Your task to perform on an android device: open sync settings in chrome Image 0: 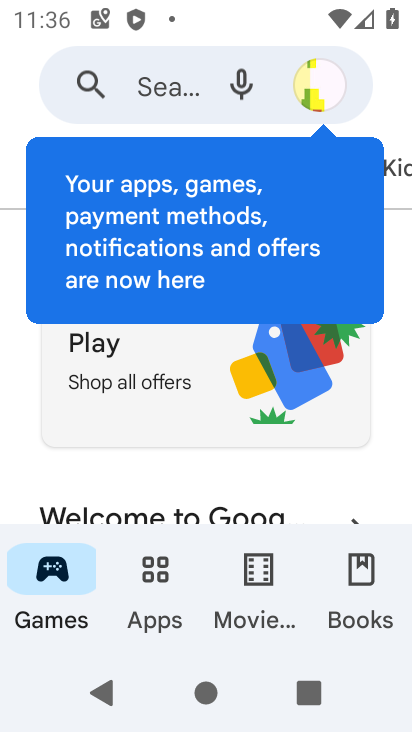
Step 0: press home button
Your task to perform on an android device: open sync settings in chrome Image 1: 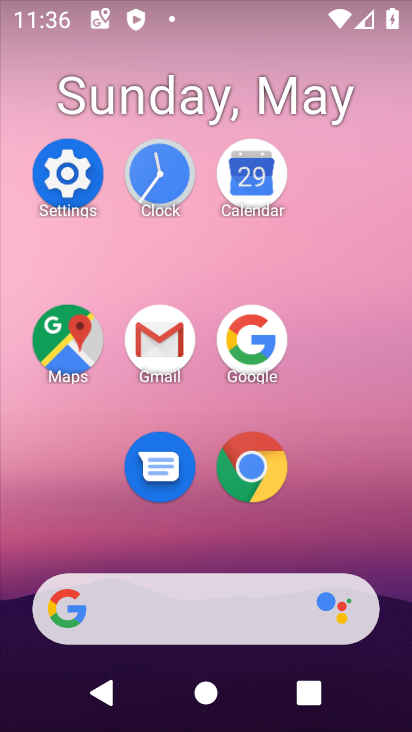
Step 1: click (257, 435)
Your task to perform on an android device: open sync settings in chrome Image 2: 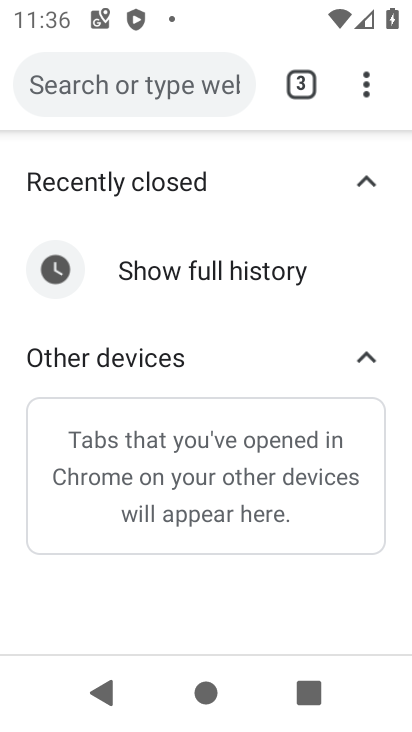
Step 2: click (360, 76)
Your task to perform on an android device: open sync settings in chrome Image 3: 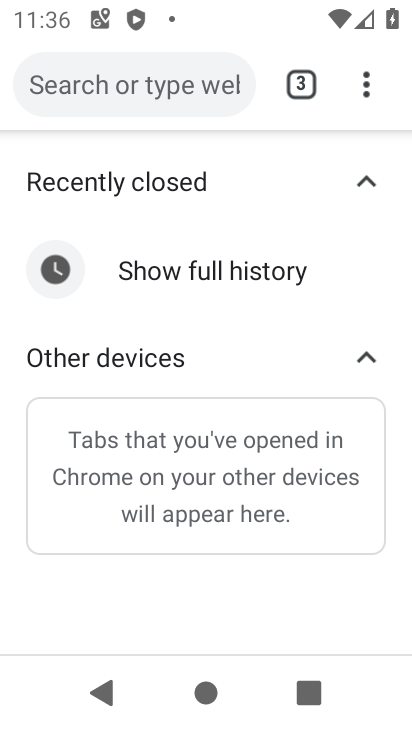
Step 3: click (356, 94)
Your task to perform on an android device: open sync settings in chrome Image 4: 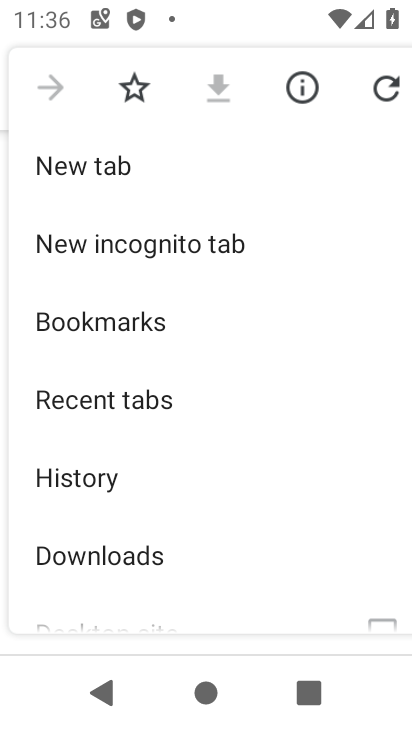
Step 4: drag from (124, 648) to (215, 280)
Your task to perform on an android device: open sync settings in chrome Image 5: 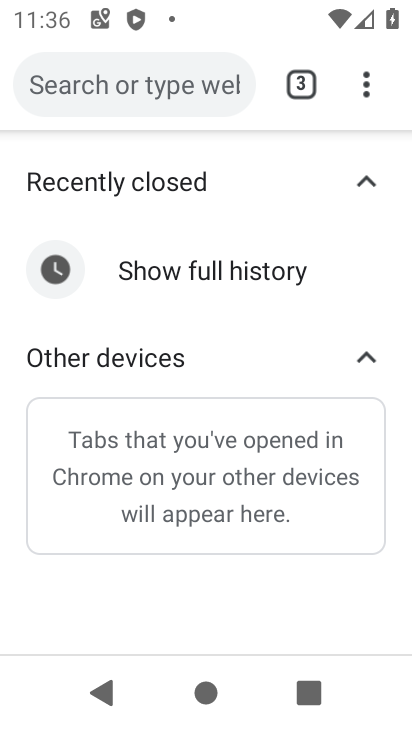
Step 5: click (374, 91)
Your task to perform on an android device: open sync settings in chrome Image 6: 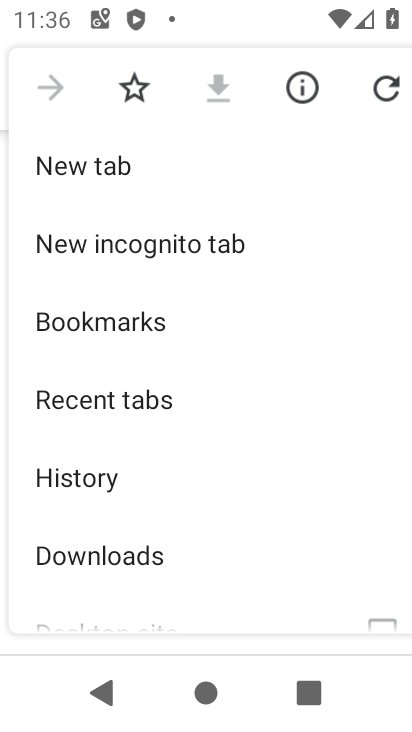
Step 6: drag from (139, 537) to (193, 154)
Your task to perform on an android device: open sync settings in chrome Image 7: 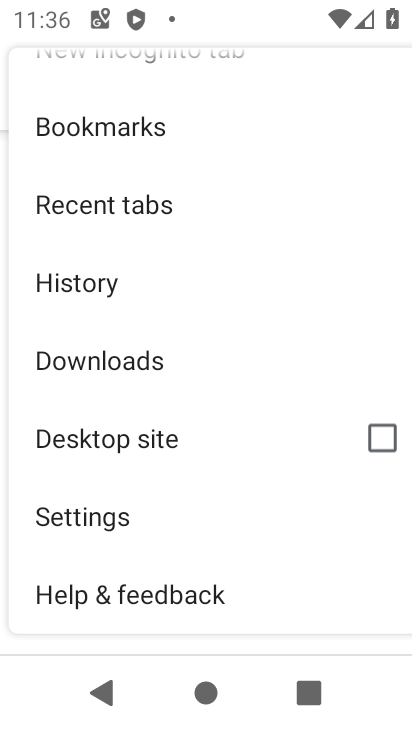
Step 7: click (133, 522)
Your task to perform on an android device: open sync settings in chrome Image 8: 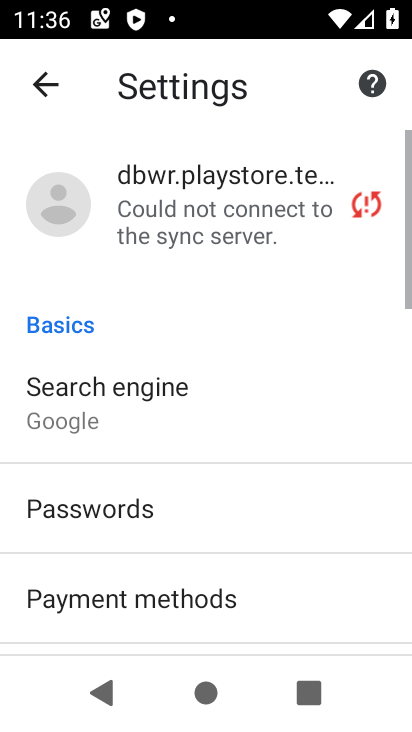
Step 8: drag from (132, 509) to (175, 110)
Your task to perform on an android device: open sync settings in chrome Image 9: 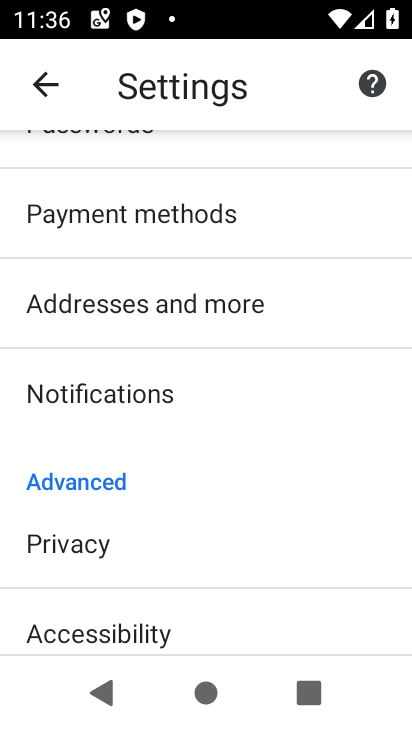
Step 9: drag from (137, 572) to (178, 214)
Your task to perform on an android device: open sync settings in chrome Image 10: 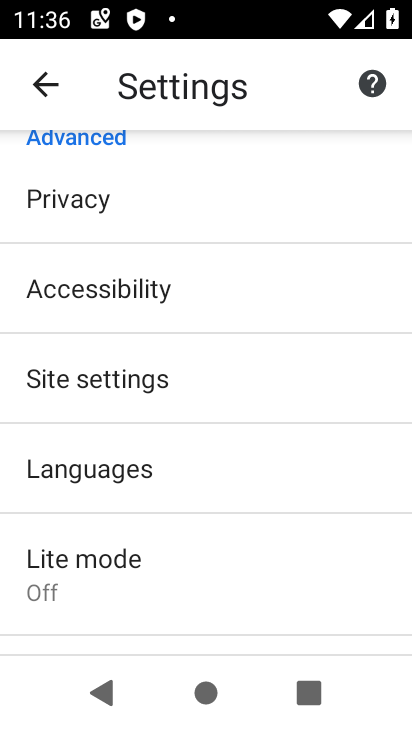
Step 10: click (179, 401)
Your task to perform on an android device: open sync settings in chrome Image 11: 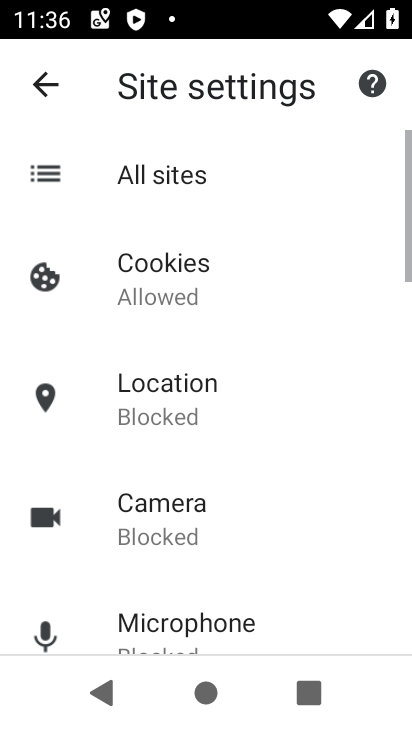
Step 11: drag from (186, 568) to (228, 157)
Your task to perform on an android device: open sync settings in chrome Image 12: 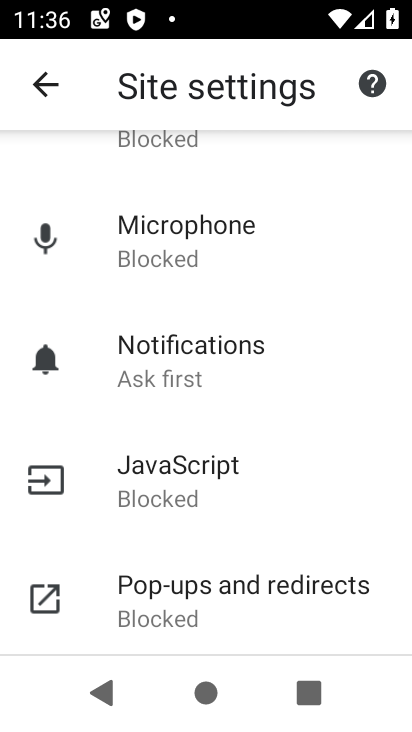
Step 12: drag from (220, 521) to (219, 232)
Your task to perform on an android device: open sync settings in chrome Image 13: 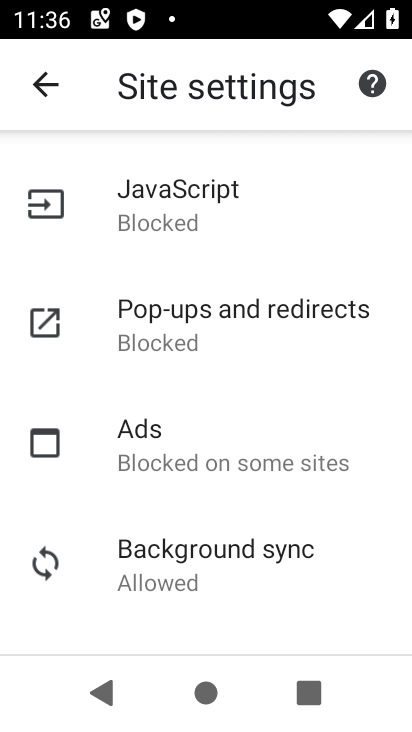
Step 13: drag from (233, 601) to (239, 342)
Your task to perform on an android device: open sync settings in chrome Image 14: 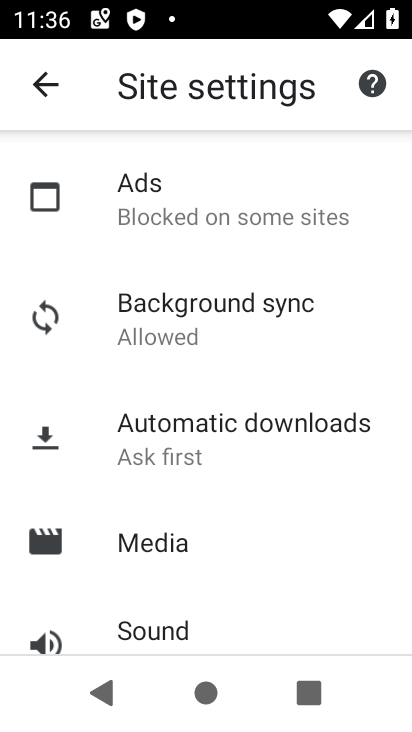
Step 14: drag from (239, 343) to (184, 653)
Your task to perform on an android device: open sync settings in chrome Image 15: 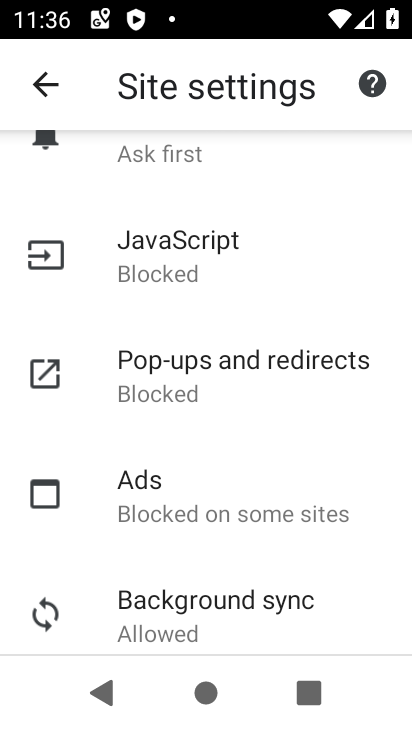
Step 15: drag from (329, 225) to (273, 516)
Your task to perform on an android device: open sync settings in chrome Image 16: 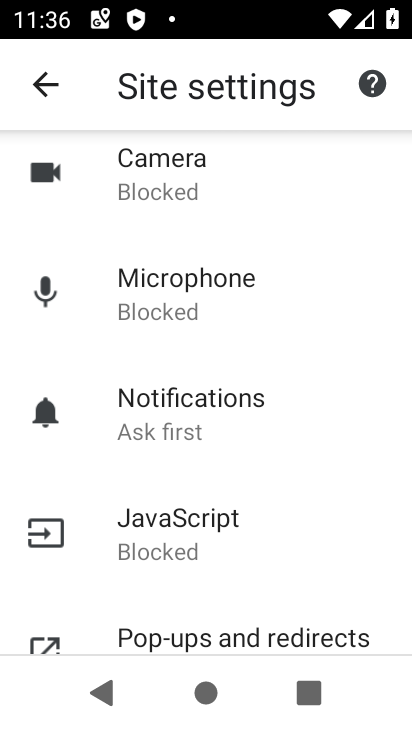
Step 16: drag from (302, 226) to (224, 695)
Your task to perform on an android device: open sync settings in chrome Image 17: 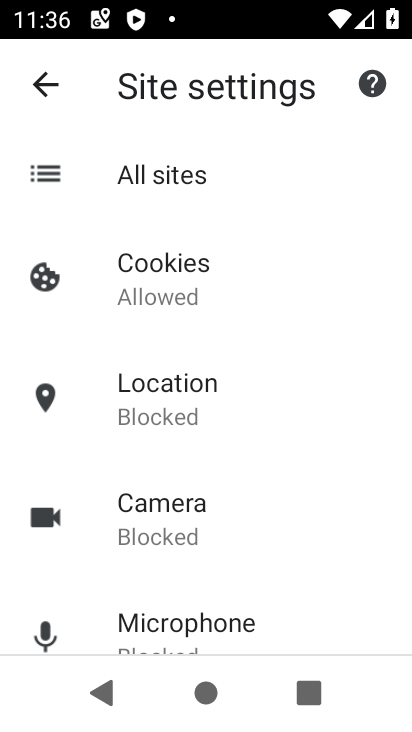
Step 17: drag from (260, 559) to (277, 163)
Your task to perform on an android device: open sync settings in chrome Image 18: 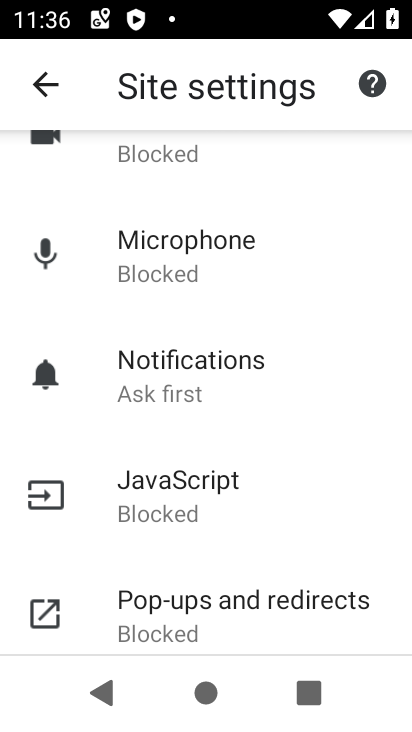
Step 18: drag from (267, 529) to (292, 268)
Your task to perform on an android device: open sync settings in chrome Image 19: 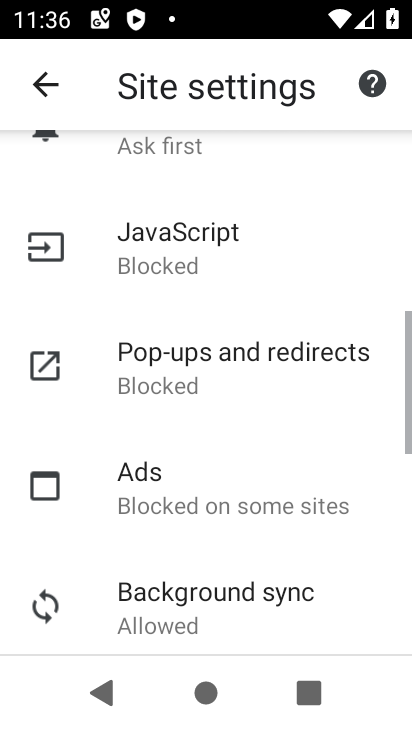
Step 19: click (228, 599)
Your task to perform on an android device: open sync settings in chrome Image 20: 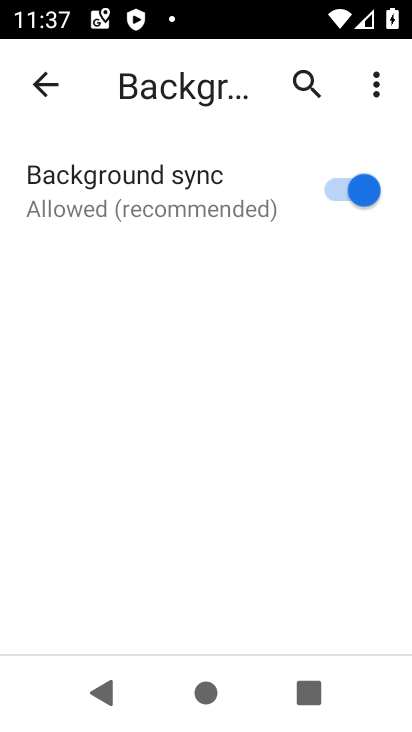
Step 20: task complete